Your task to perform on an android device: find snoozed emails in the gmail app Image 0: 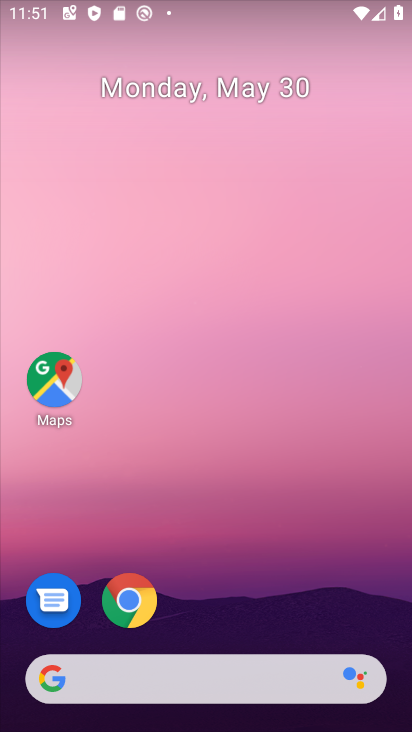
Step 0: drag from (233, 726) to (233, 118)
Your task to perform on an android device: find snoozed emails in the gmail app Image 1: 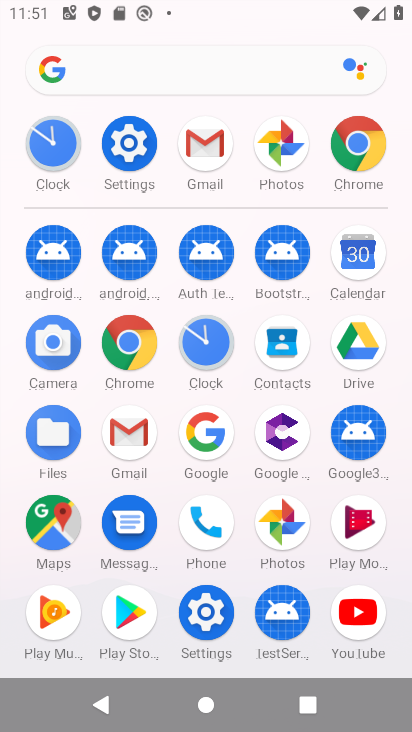
Step 1: click (132, 432)
Your task to perform on an android device: find snoozed emails in the gmail app Image 2: 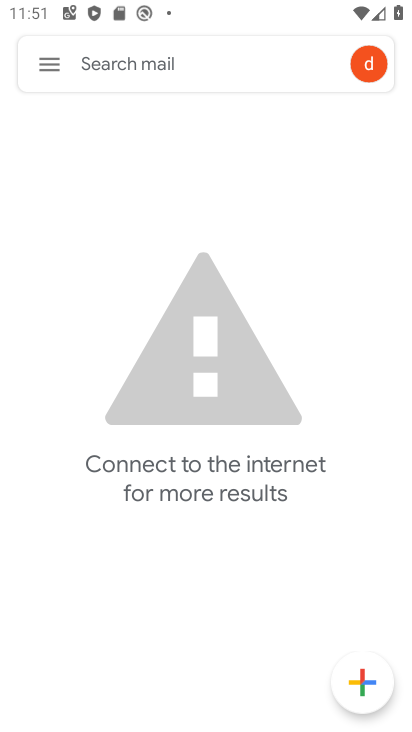
Step 2: click (43, 65)
Your task to perform on an android device: find snoozed emails in the gmail app Image 3: 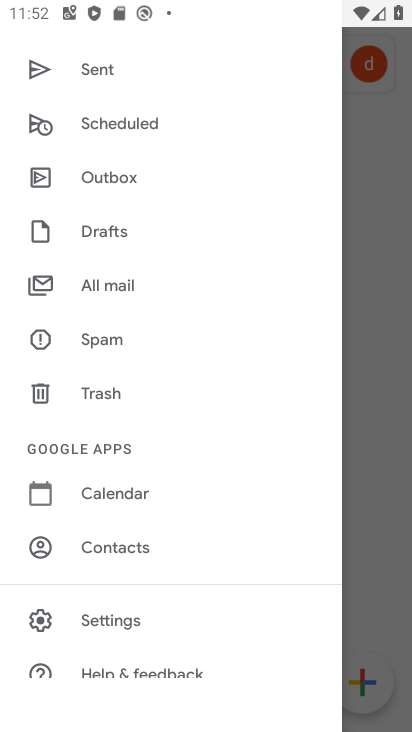
Step 3: drag from (180, 162) to (163, 402)
Your task to perform on an android device: find snoozed emails in the gmail app Image 4: 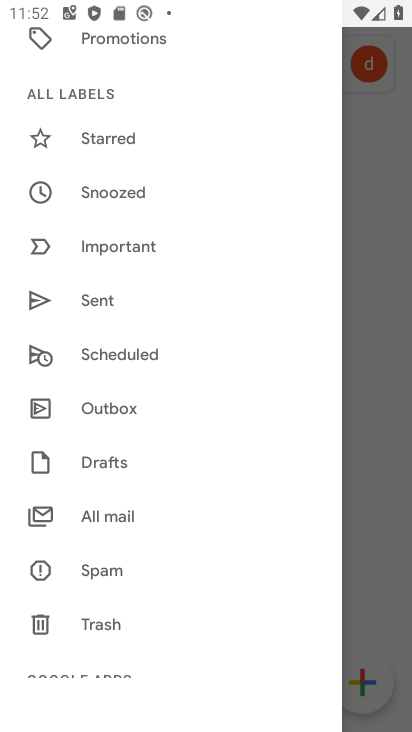
Step 4: click (120, 195)
Your task to perform on an android device: find snoozed emails in the gmail app Image 5: 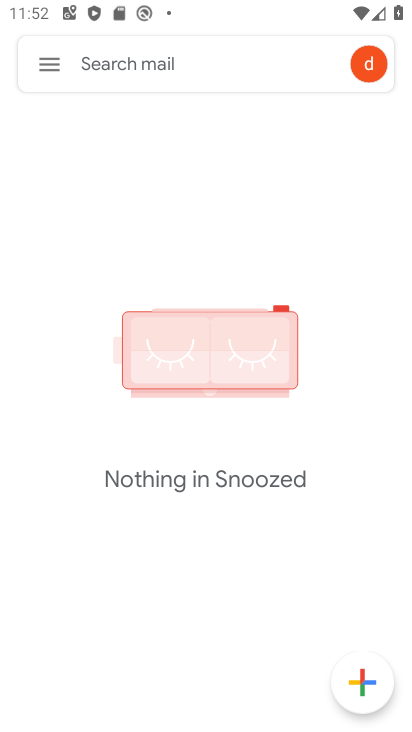
Step 5: task complete